Your task to perform on an android device: Open calendar and show me the first week of next month Image 0: 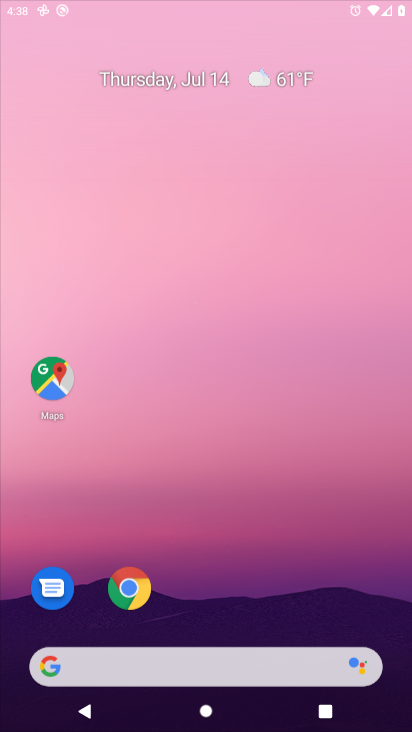
Step 0: press home button
Your task to perform on an android device: Open calendar and show me the first week of next month Image 1: 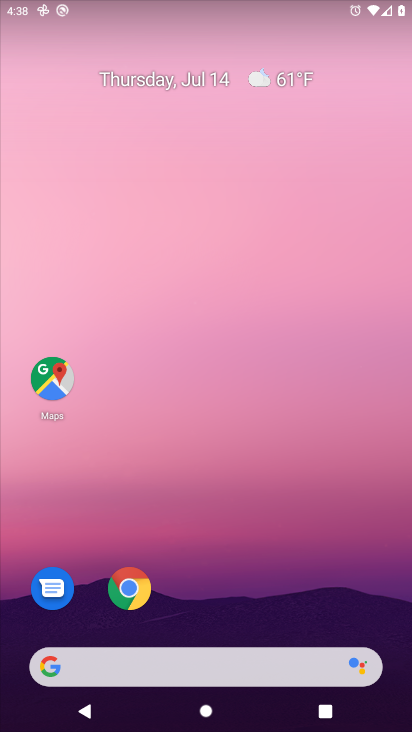
Step 1: drag from (216, 634) to (250, 15)
Your task to perform on an android device: Open calendar and show me the first week of next month Image 2: 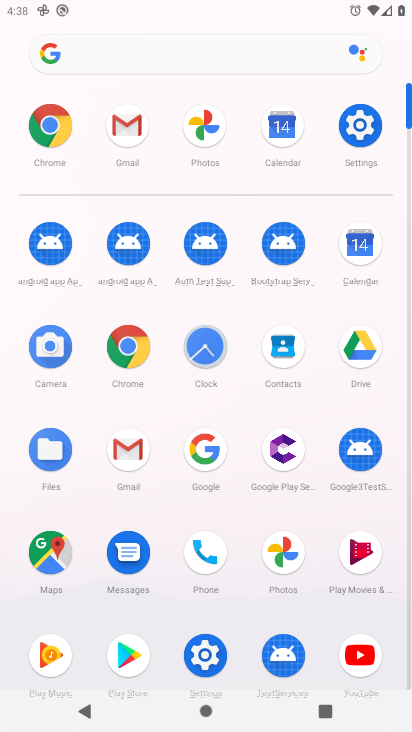
Step 2: click (359, 248)
Your task to perform on an android device: Open calendar and show me the first week of next month Image 3: 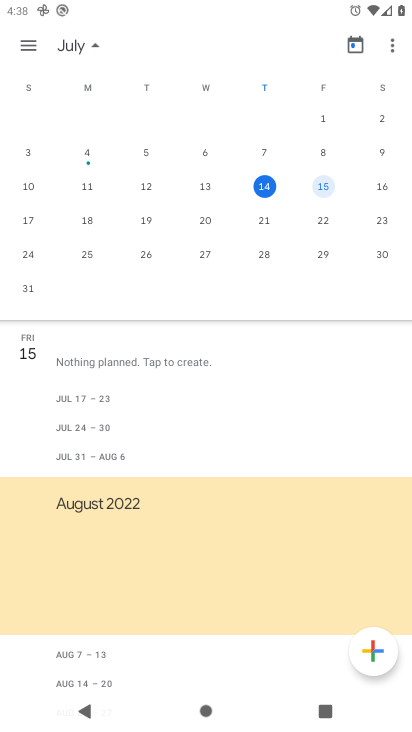
Step 3: drag from (326, 163) to (37, 171)
Your task to perform on an android device: Open calendar and show me the first week of next month Image 4: 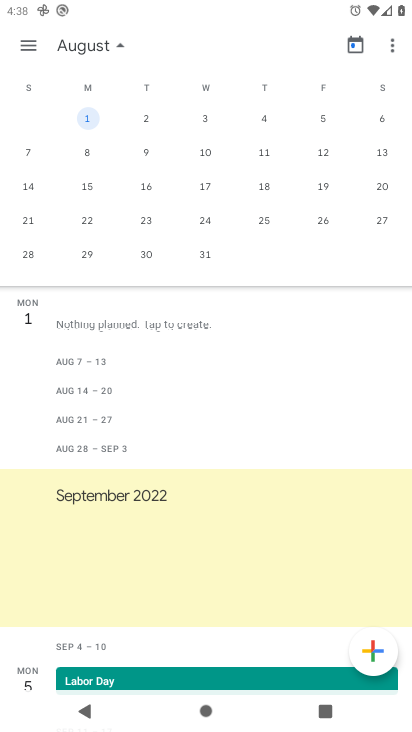
Step 4: click (92, 118)
Your task to perform on an android device: Open calendar and show me the first week of next month Image 5: 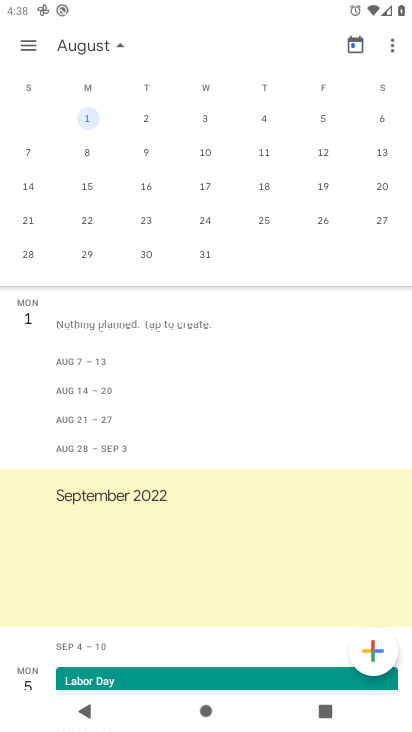
Step 5: click (145, 124)
Your task to perform on an android device: Open calendar and show me the first week of next month Image 6: 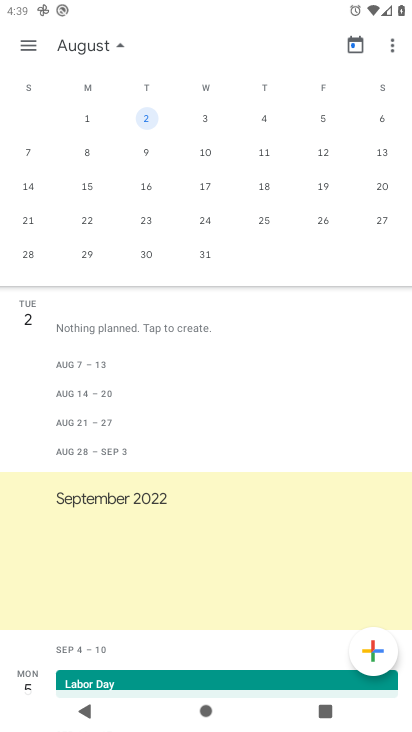
Step 6: click (197, 119)
Your task to perform on an android device: Open calendar and show me the first week of next month Image 7: 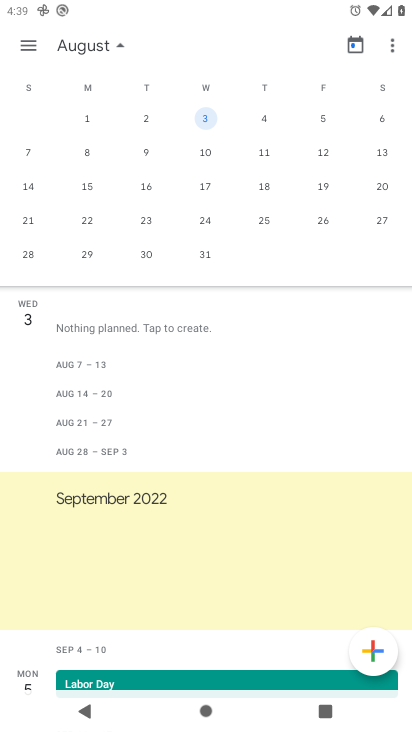
Step 7: click (267, 126)
Your task to perform on an android device: Open calendar and show me the first week of next month Image 8: 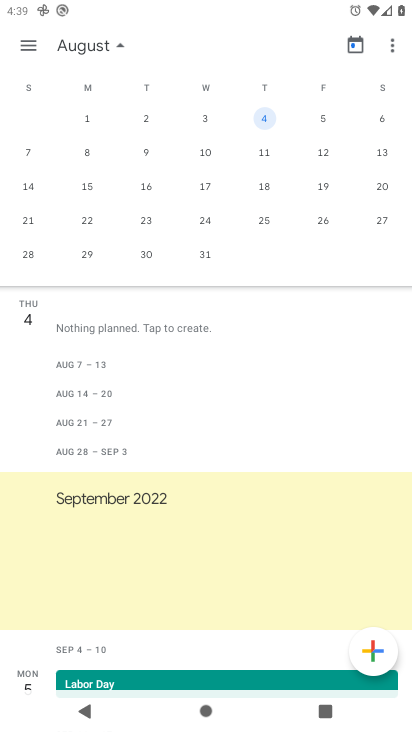
Step 8: click (322, 122)
Your task to perform on an android device: Open calendar and show me the first week of next month Image 9: 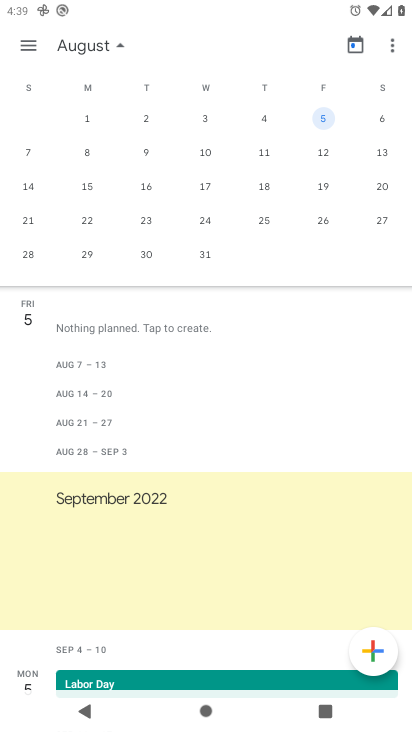
Step 9: click (378, 118)
Your task to perform on an android device: Open calendar and show me the first week of next month Image 10: 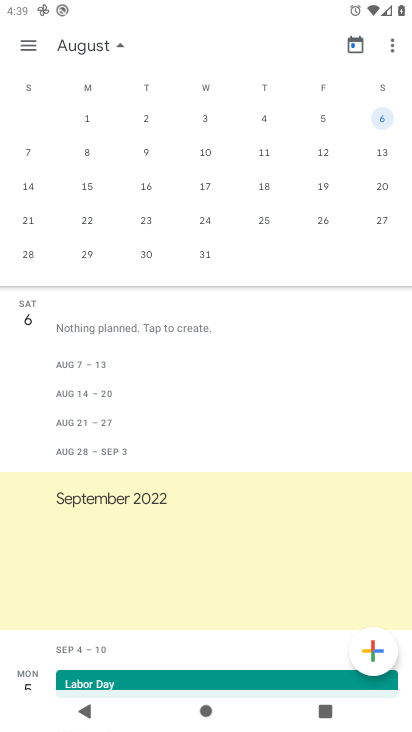
Step 10: click (32, 157)
Your task to perform on an android device: Open calendar and show me the first week of next month Image 11: 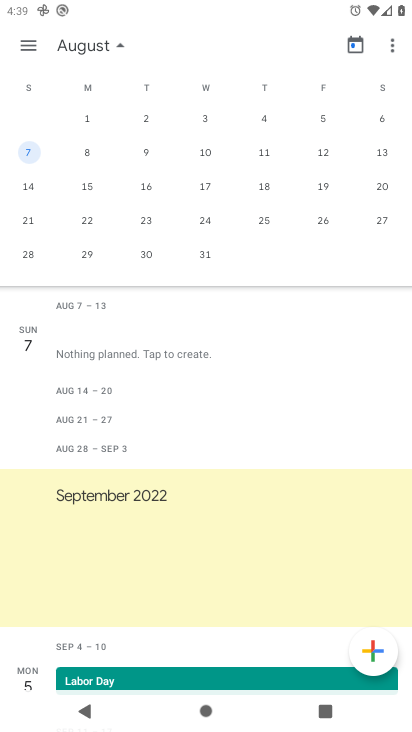
Step 11: task complete